Your task to perform on an android device: Go to sound settings Image 0: 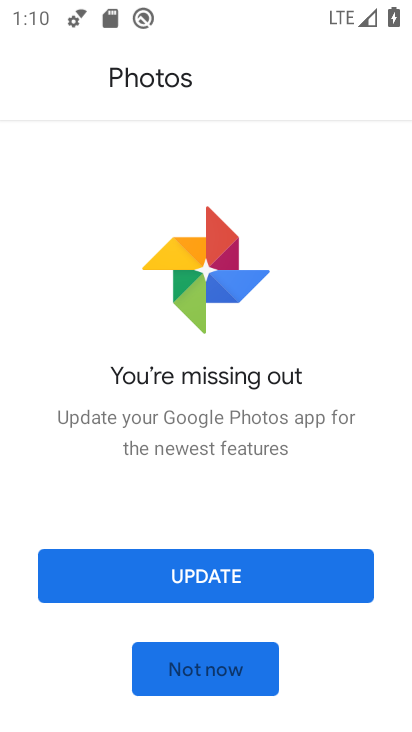
Step 0: press home button
Your task to perform on an android device: Go to sound settings Image 1: 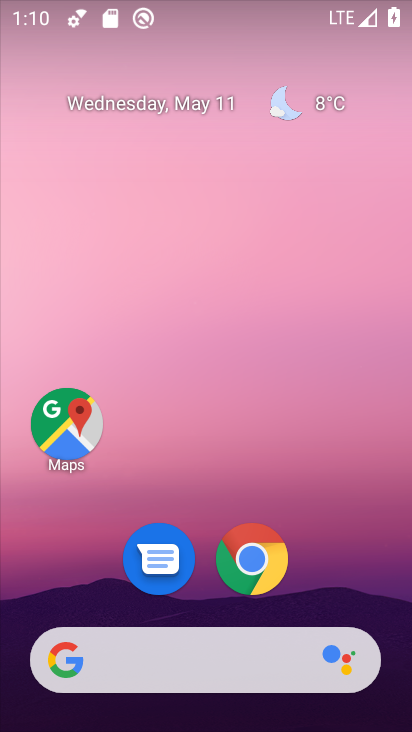
Step 1: drag from (200, 726) to (201, 95)
Your task to perform on an android device: Go to sound settings Image 2: 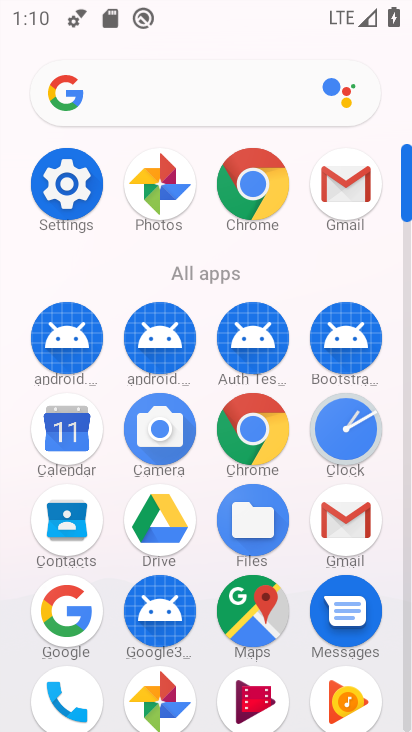
Step 2: click (69, 189)
Your task to perform on an android device: Go to sound settings Image 3: 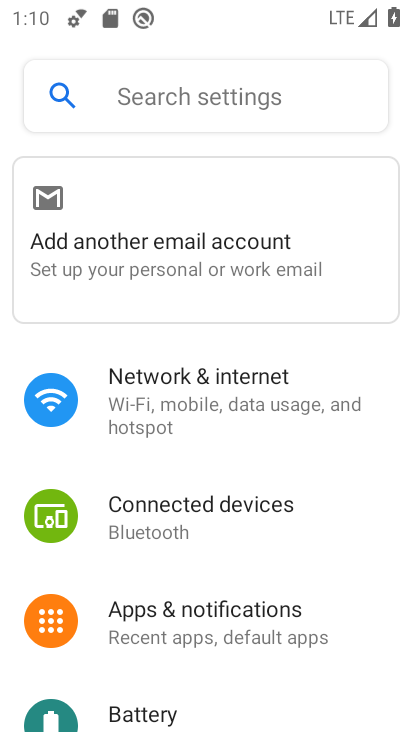
Step 3: drag from (189, 695) to (212, 276)
Your task to perform on an android device: Go to sound settings Image 4: 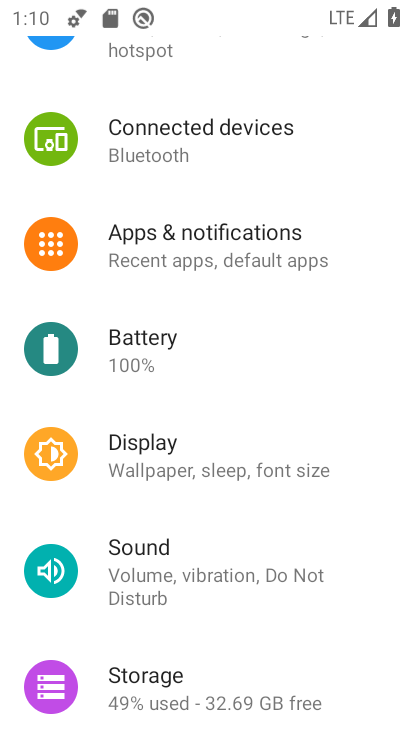
Step 4: click (141, 578)
Your task to perform on an android device: Go to sound settings Image 5: 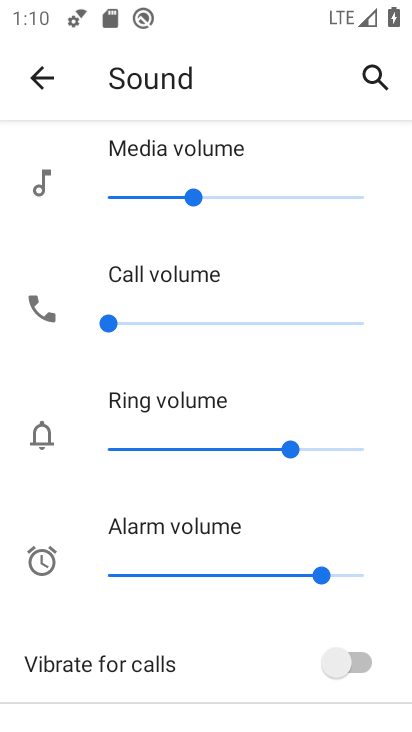
Step 5: task complete